Your task to perform on an android device: Open display settings Image 0: 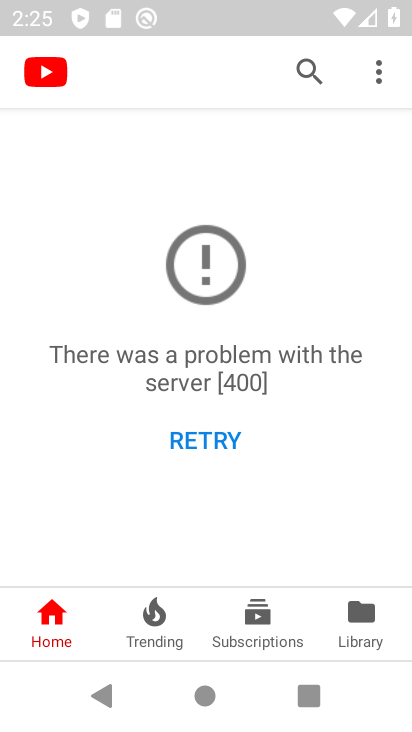
Step 0: press back button
Your task to perform on an android device: Open display settings Image 1: 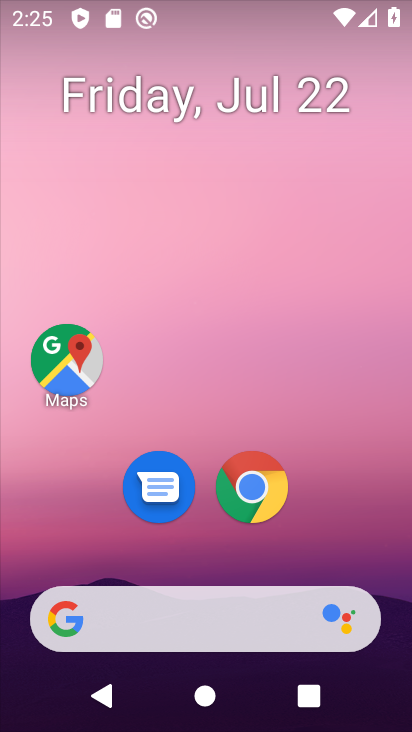
Step 1: drag from (144, 561) to (224, 12)
Your task to perform on an android device: Open display settings Image 2: 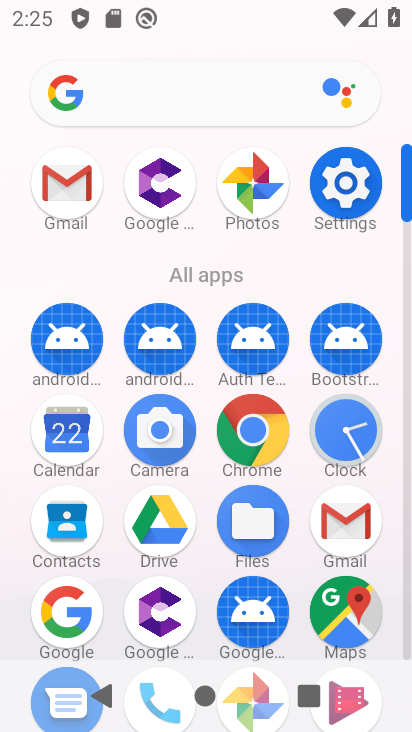
Step 2: click (342, 173)
Your task to perform on an android device: Open display settings Image 3: 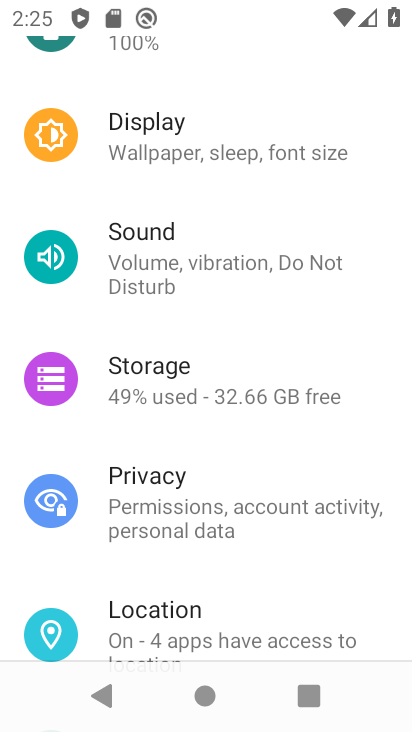
Step 3: drag from (257, 160) to (226, 665)
Your task to perform on an android device: Open display settings Image 4: 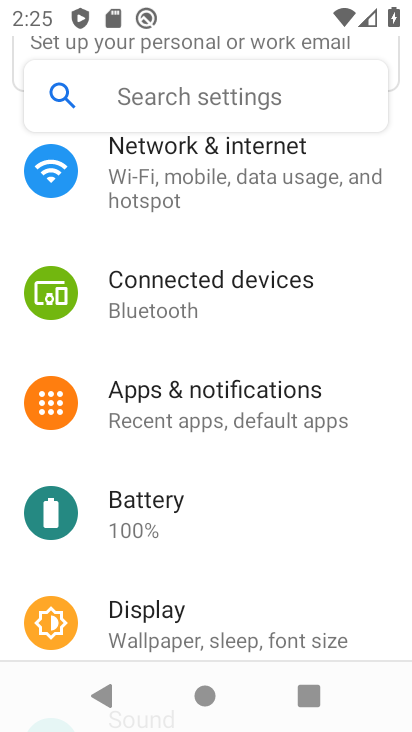
Step 4: drag from (185, 310) to (267, 42)
Your task to perform on an android device: Open display settings Image 5: 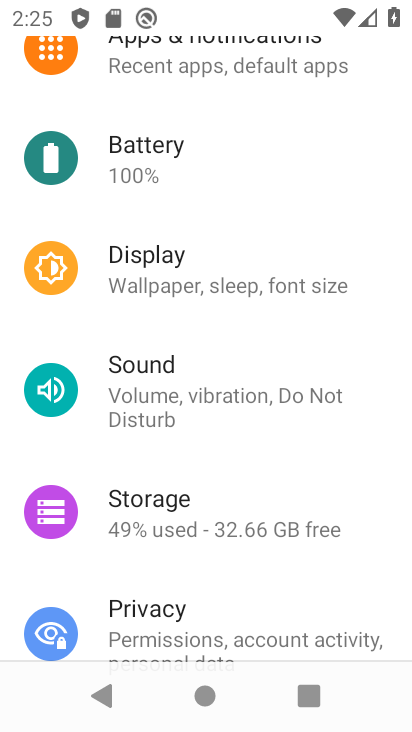
Step 5: click (140, 267)
Your task to perform on an android device: Open display settings Image 6: 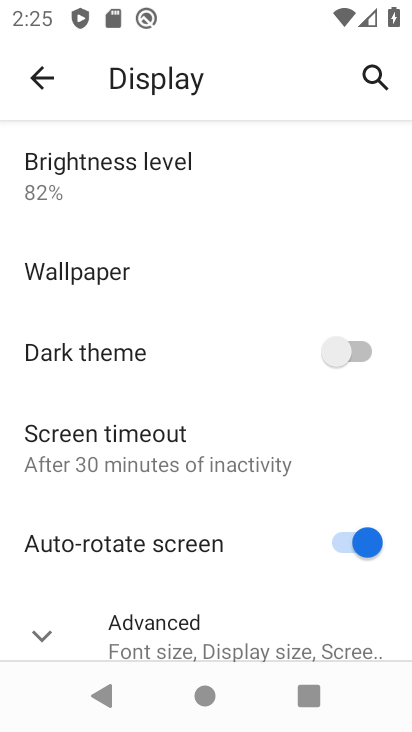
Step 6: task complete